Your task to perform on an android device: Open Google Maps and go to "Timeline" Image 0: 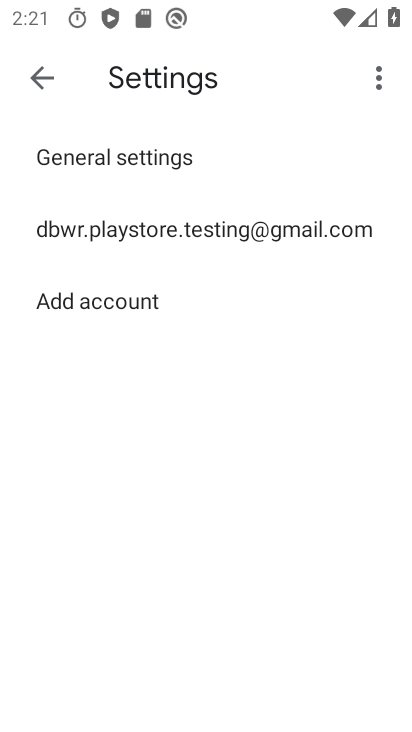
Step 0: press home button
Your task to perform on an android device: Open Google Maps and go to "Timeline" Image 1: 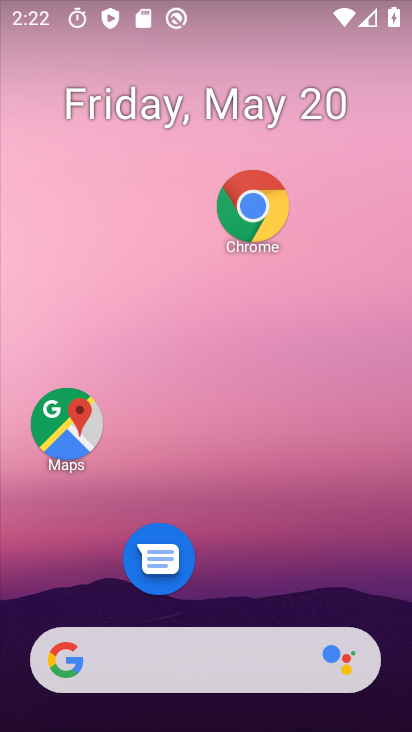
Step 1: drag from (218, 608) to (226, 11)
Your task to perform on an android device: Open Google Maps and go to "Timeline" Image 2: 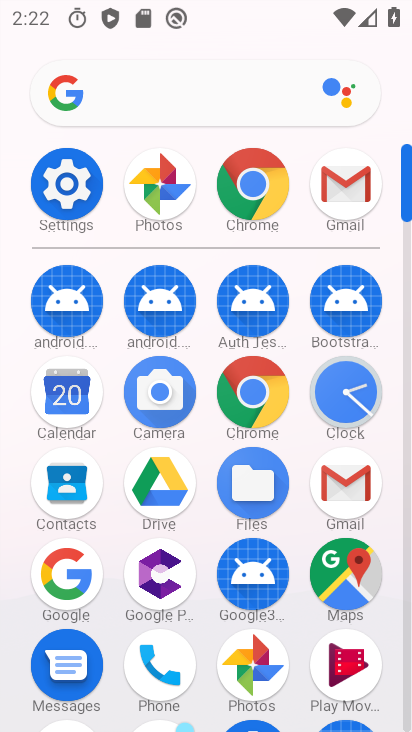
Step 2: click (359, 567)
Your task to perform on an android device: Open Google Maps and go to "Timeline" Image 3: 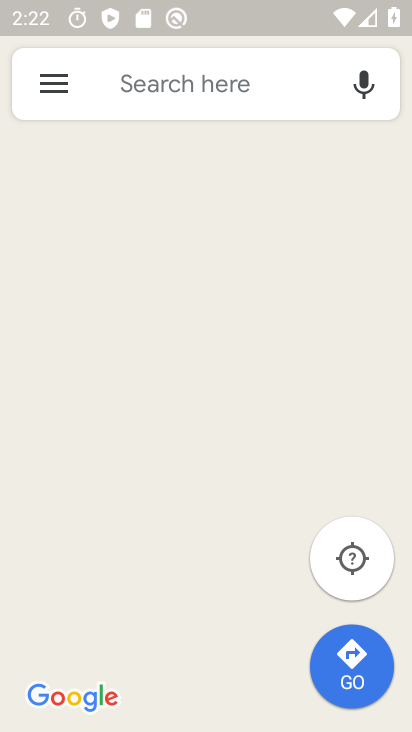
Step 3: click (35, 65)
Your task to perform on an android device: Open Google Maps and go to "Timeline" Image 4: 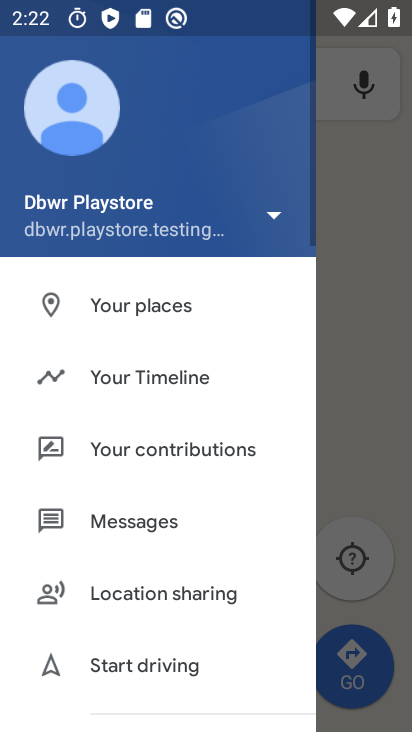
Step 4: click (89, 374)
Your task to perform on an android device: Open Google Maps and go to "Timeline" Image 5: 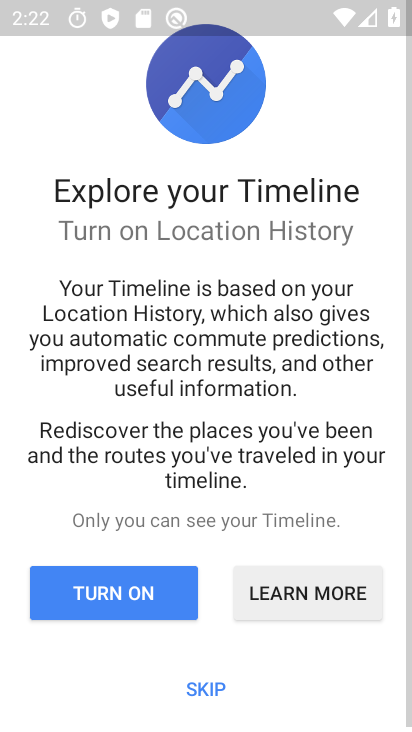
Step 5: task complete